Your task to perform on an android device: What's on my calendar today? Image 0: 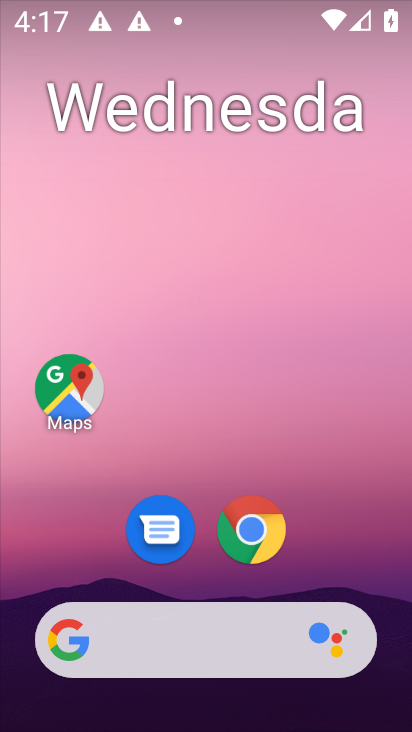
Step 0: drag from (210, 545) to (228, 7)
Your task to perform on an android device: What's on my calendar today? Image 1: 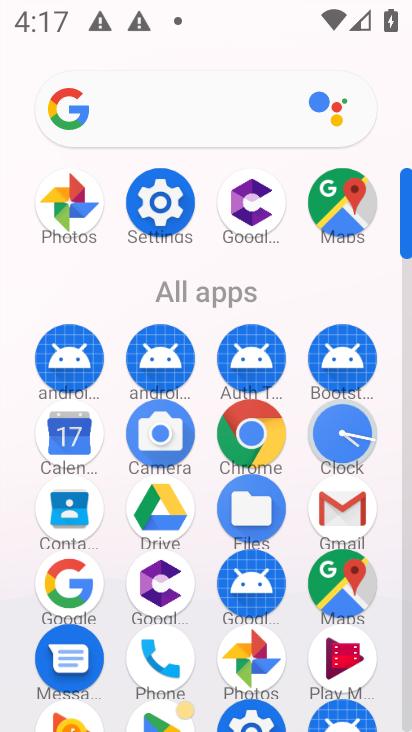
Step 1: click (62, 440)
Your task to perform on an android device: What's on my calendar today? Image 2: 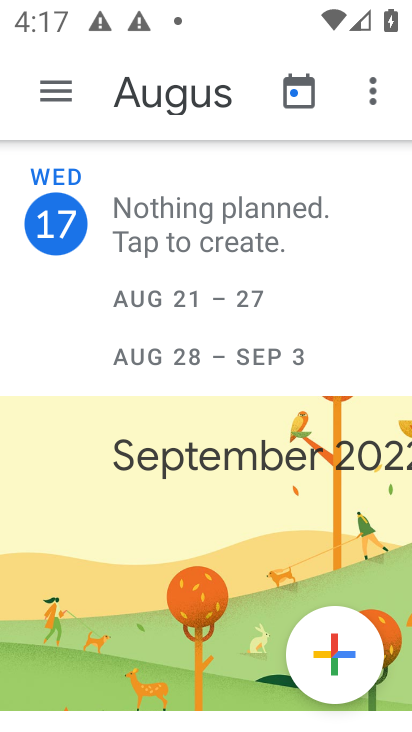
Step 2: click (54, 57)
Your task to perform on an android device: What's on my calendar today? Image 3: 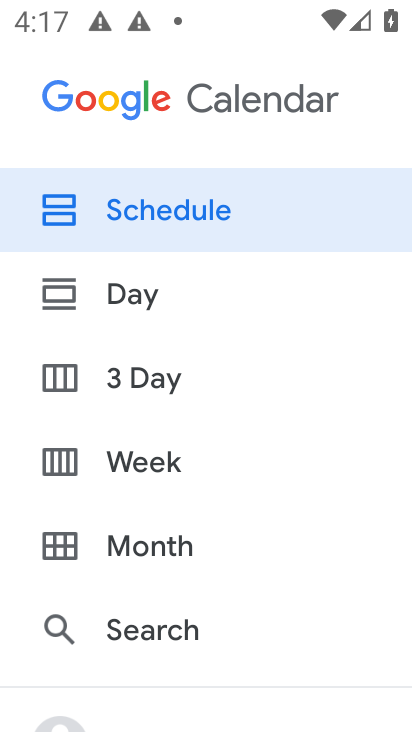
Step 3: click (146, 295)
Your task to perform on an android device: What's on my calendar today? Image 4: 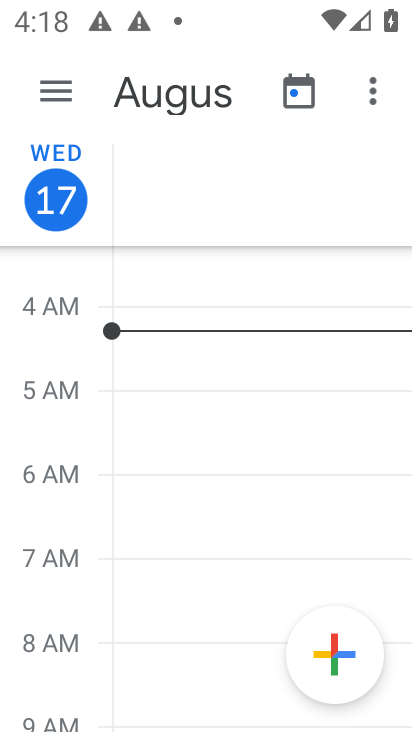
Step 4: task complete